Your task to perform on an android device: Open the stopwatch Image 0: 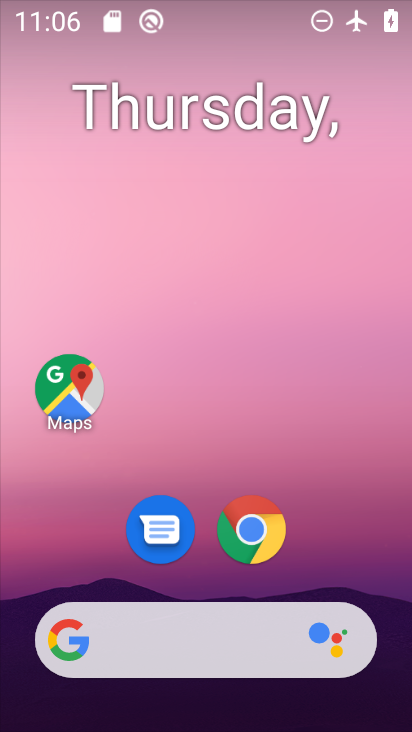
Step 0: drag from (204, 691) to (261, 14)
Your task to perform on an android device: Open the stopwatch Image 1: 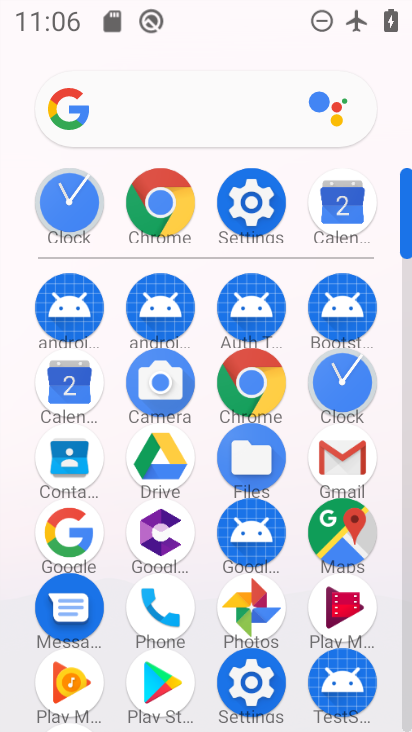
Step 1: click (348, 368)
Your task to perform on an android device: Open the stopwatch Image 2: 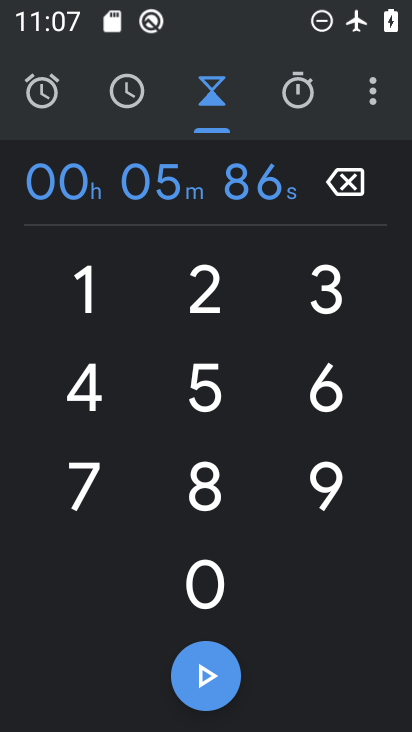
Step 2: click (282, 103)
Your task to perform on an android device: Open the stopwatch Image 3: 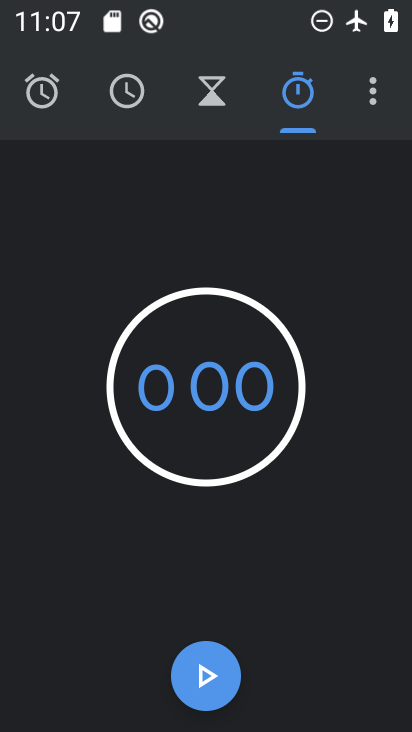
Step 3: task complete